Your task to perform on an android device: open app "Google Translate" Image 0: 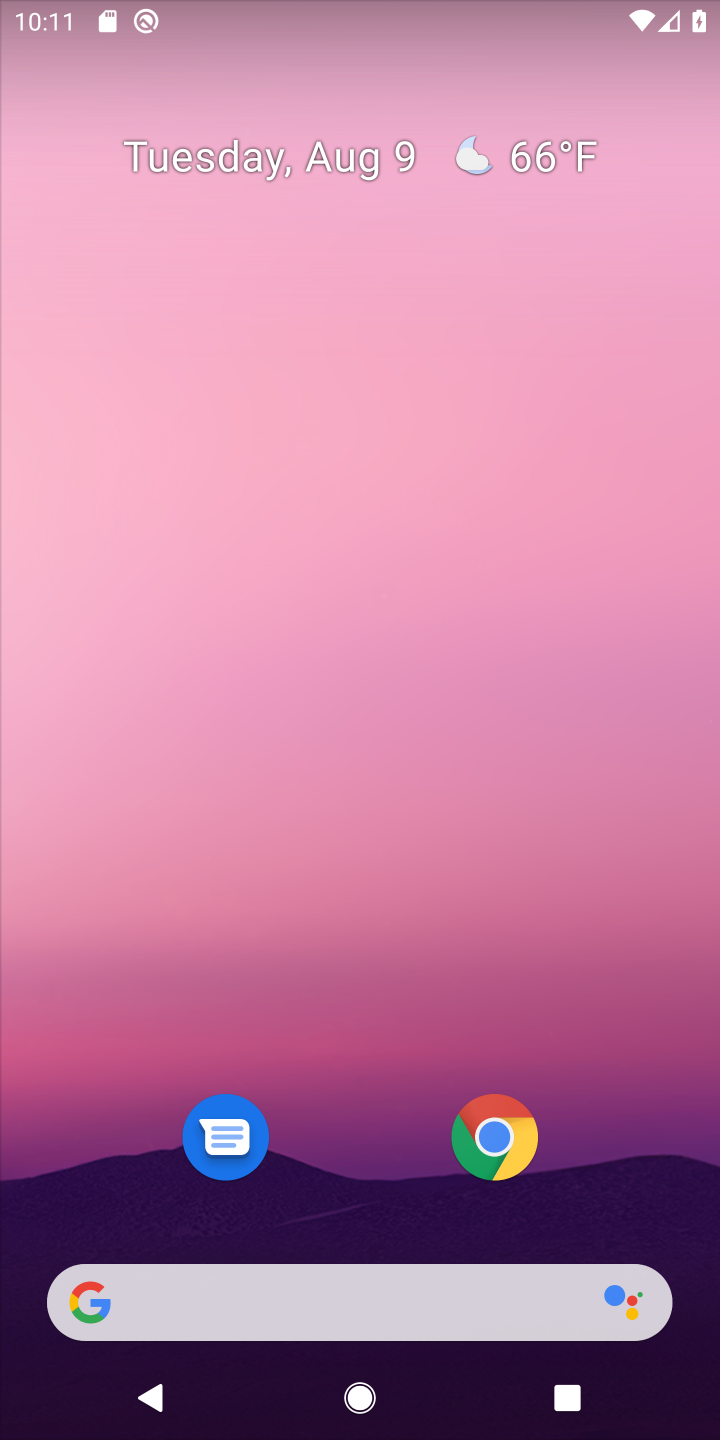
Step 0: drag from (370, 1136) to (381, 366)
Your task to perform on an android device: open app "Google Translate" Image 1: 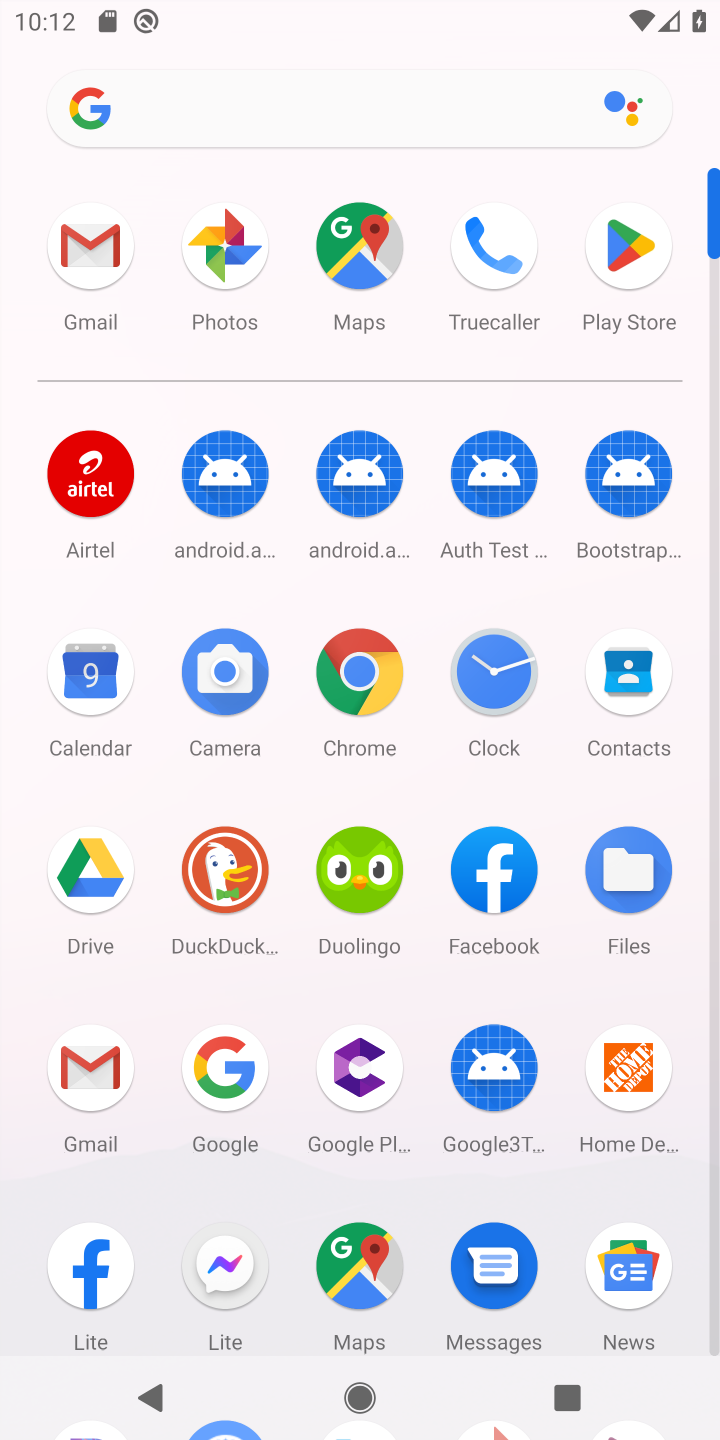
Step 1: drag from (289, 732) to (325, 300)
Your task to perform on an android device: open app "Google Translate" Image 2: 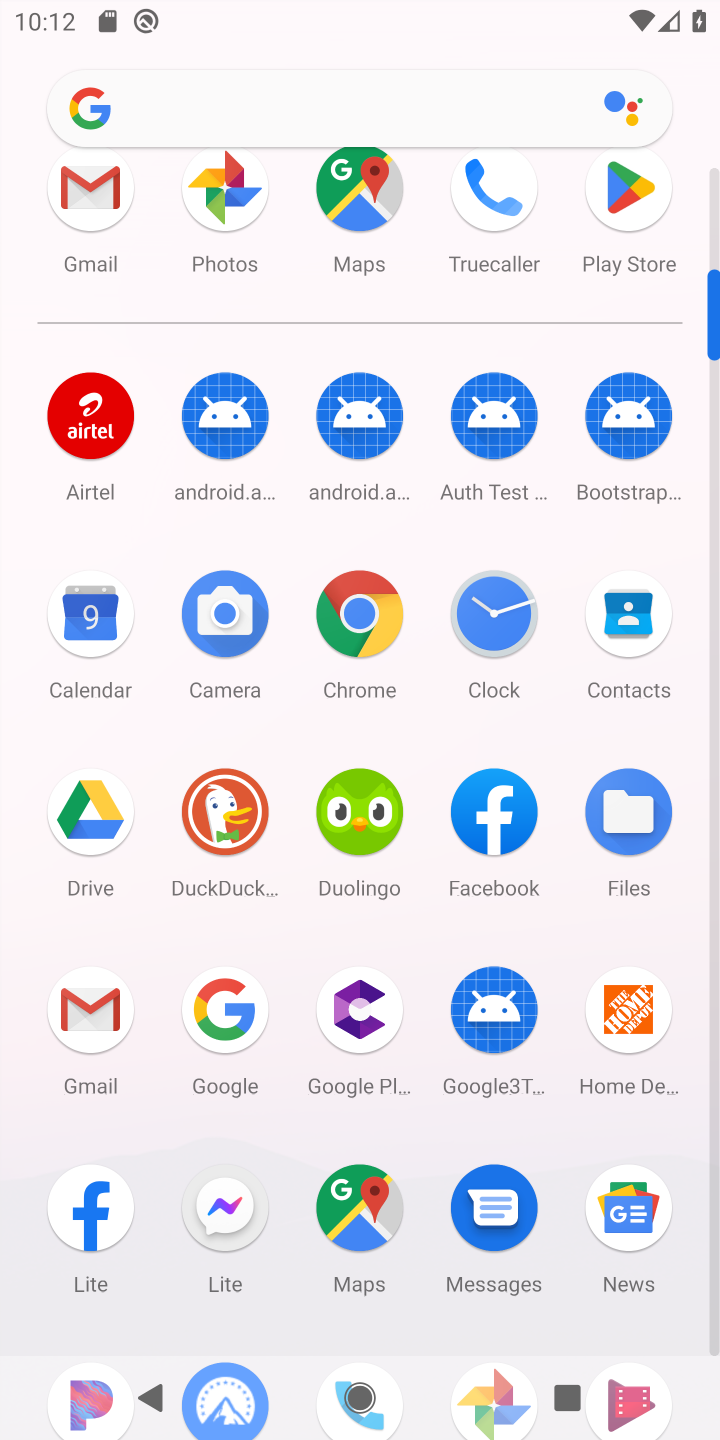
Step 2: click (659, 191)
Your task to perform on an android device: open app "Google Translate" Image 3: 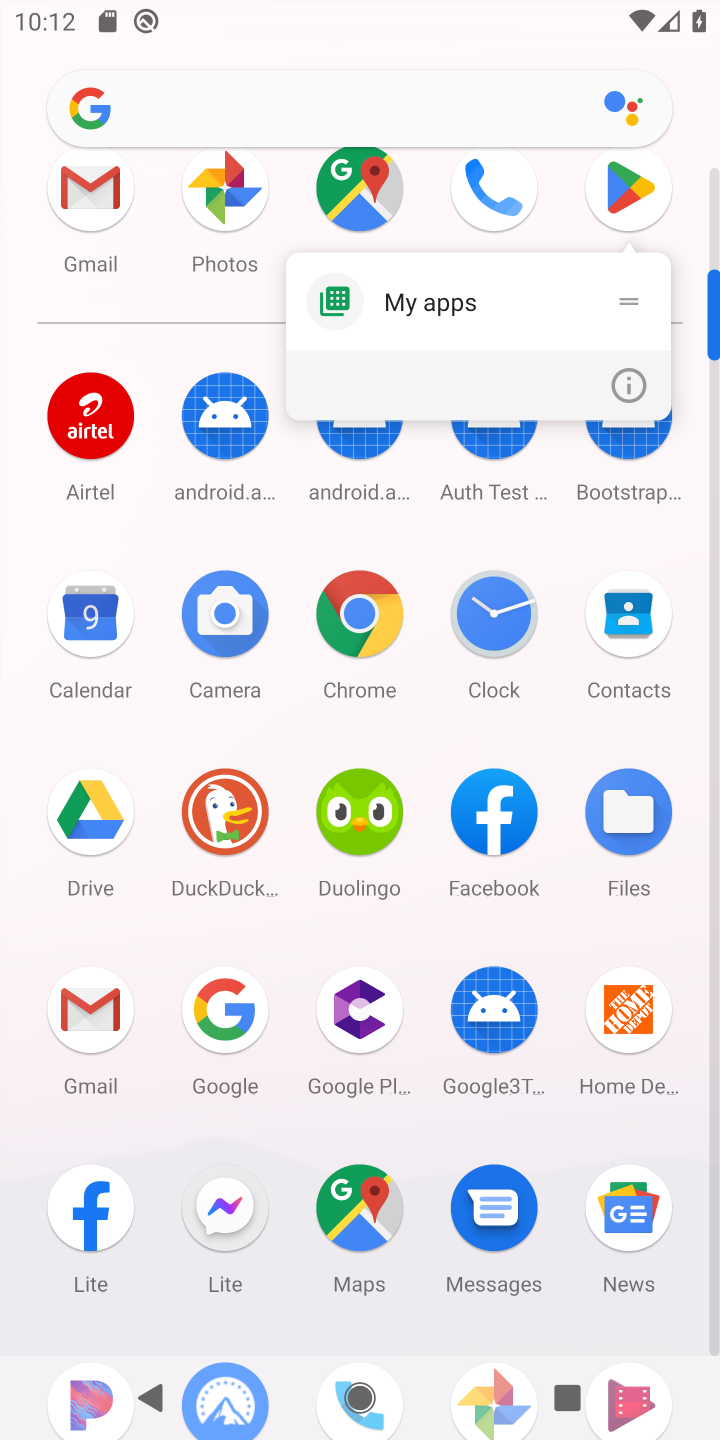
Step 3: click (659, 191)
Your task to perform on an android device: open app "Google Translate" Image 4: 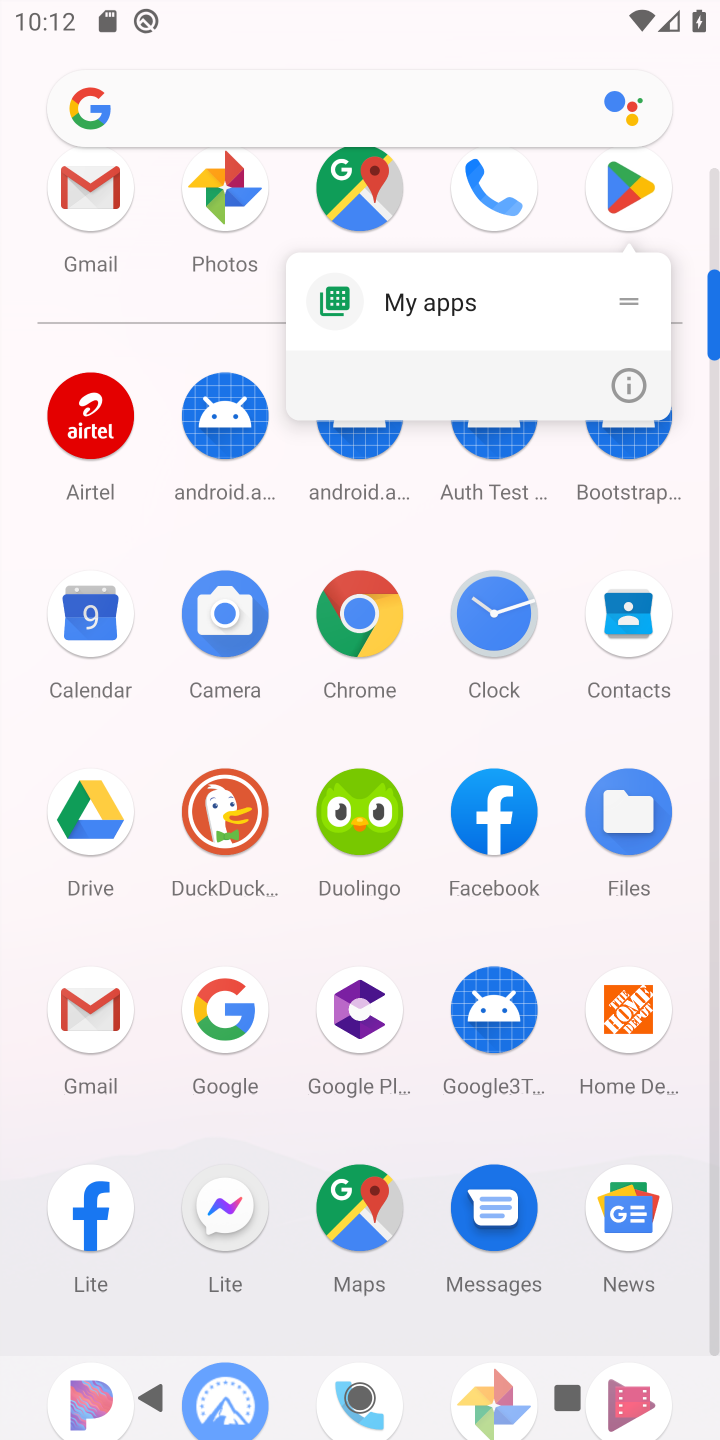
Step 4: click (655, 191)
Your task to perform on an android device: open app "Google Translate" Image 5: 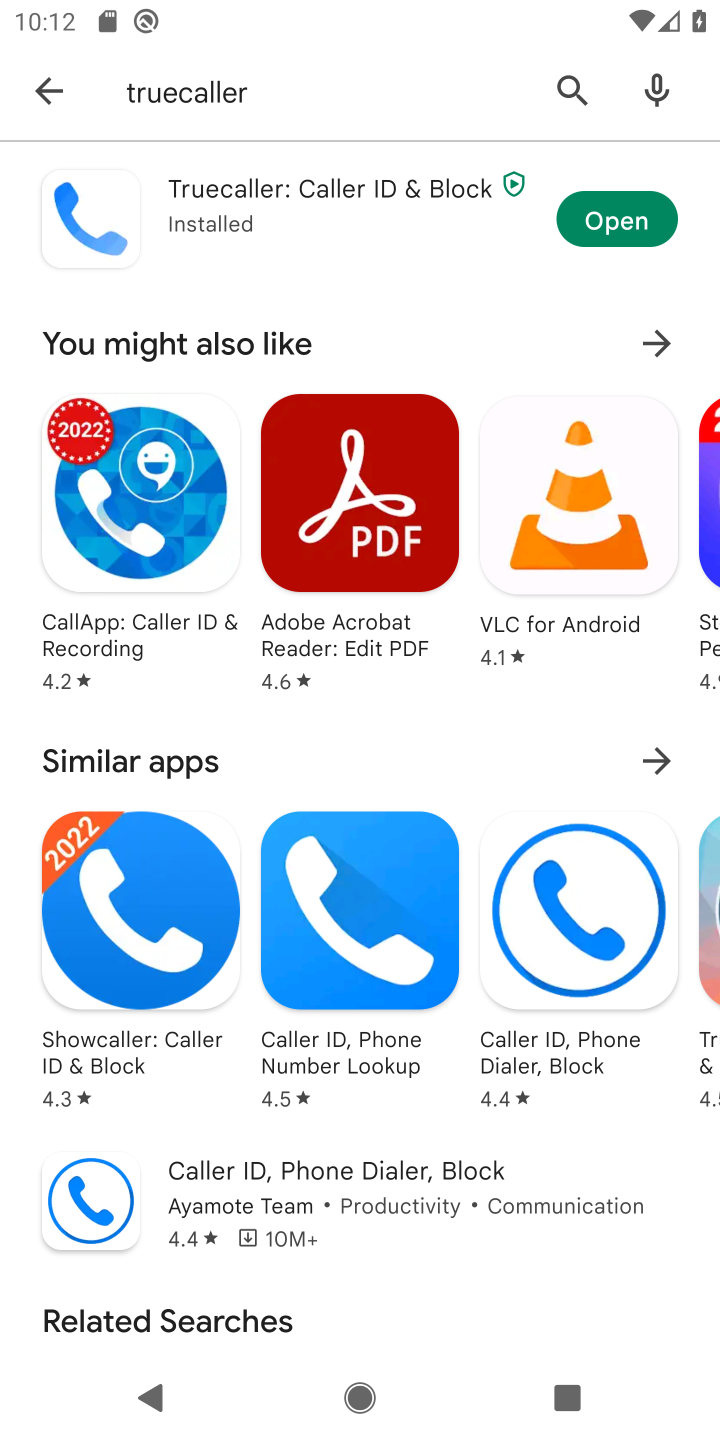
Step 5: click (576, 85)
Your task to perform on an android device: open app "Google Translate" Image 6: 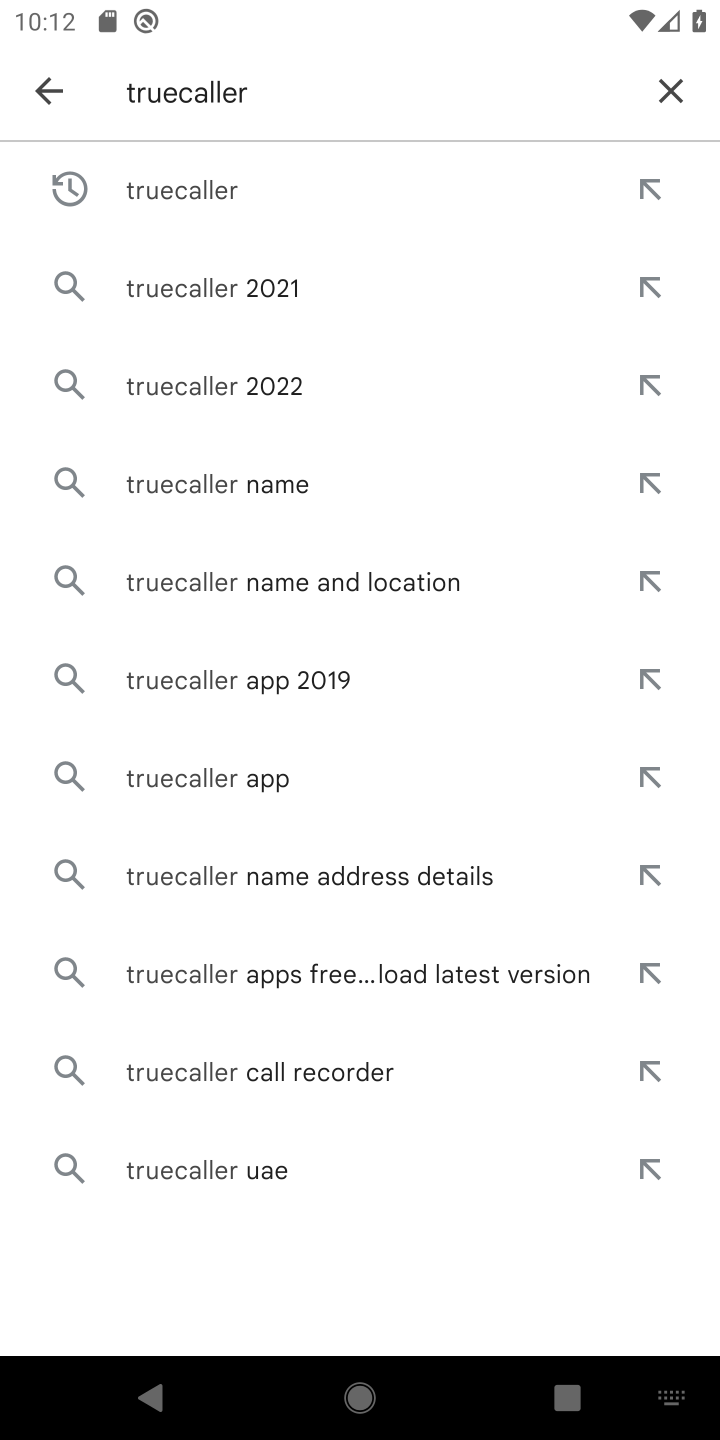
Step 6: click (664, 104)
Your task to perform on an android device: open app "Google Translate" Image 7: 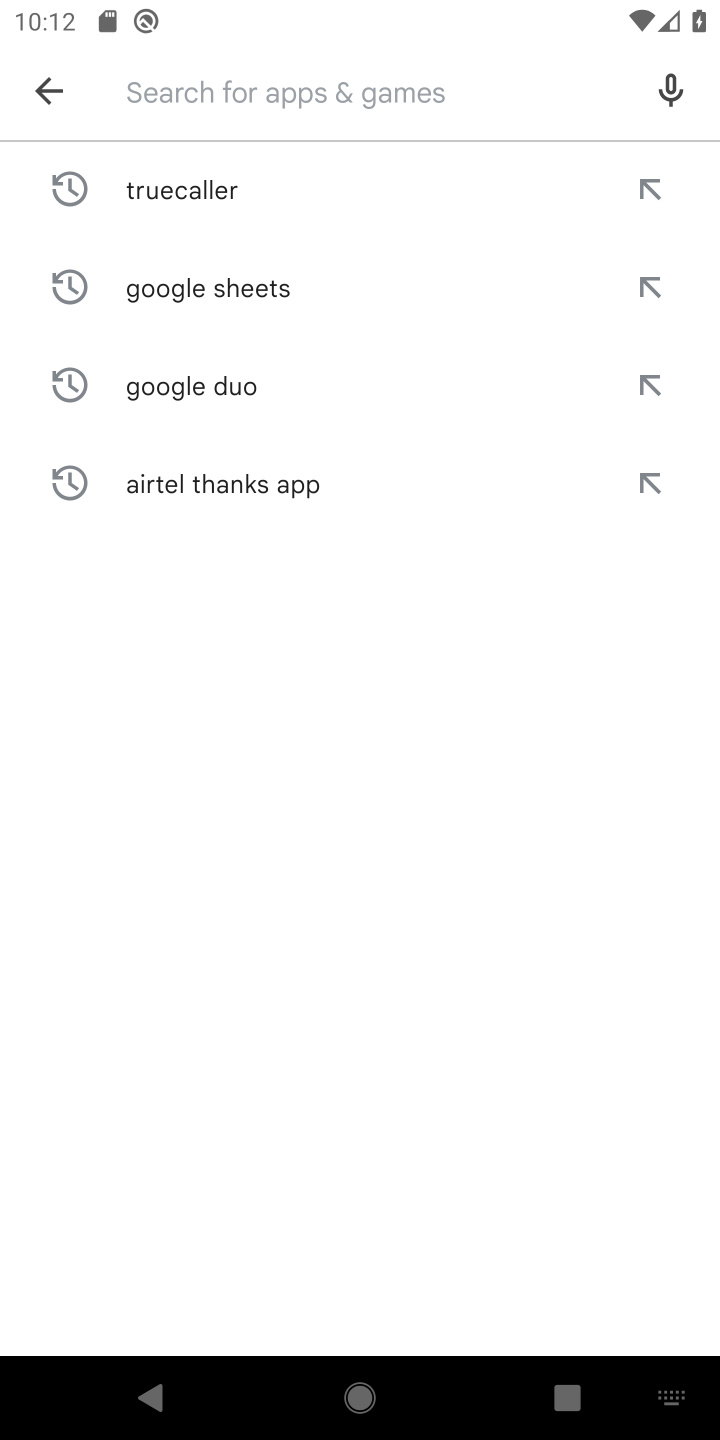
Step 7: type "Google Translate"
Your task to perform on an android device: open app "Google Translate" Image 8: 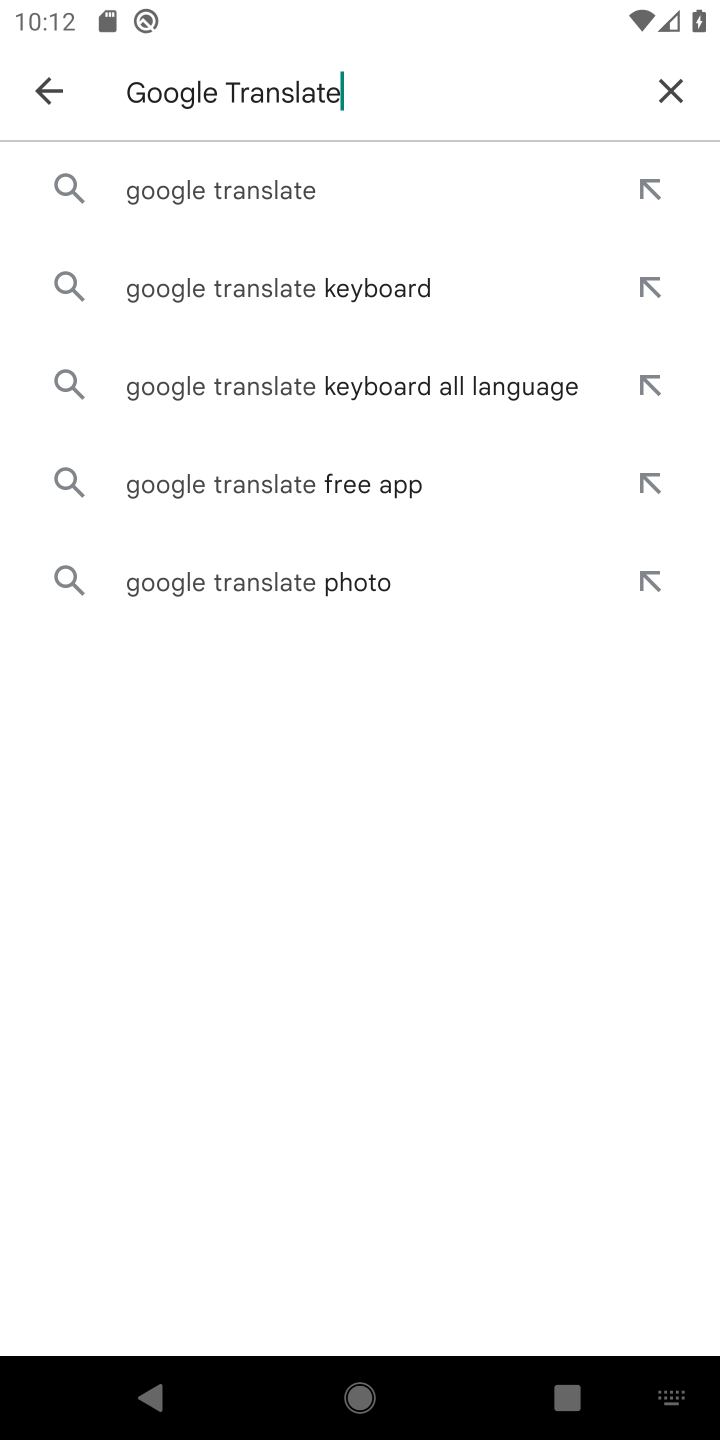
Step 8: click (193, 202)
Your task to perform on an android device: open app "Google Translate" Image 9: 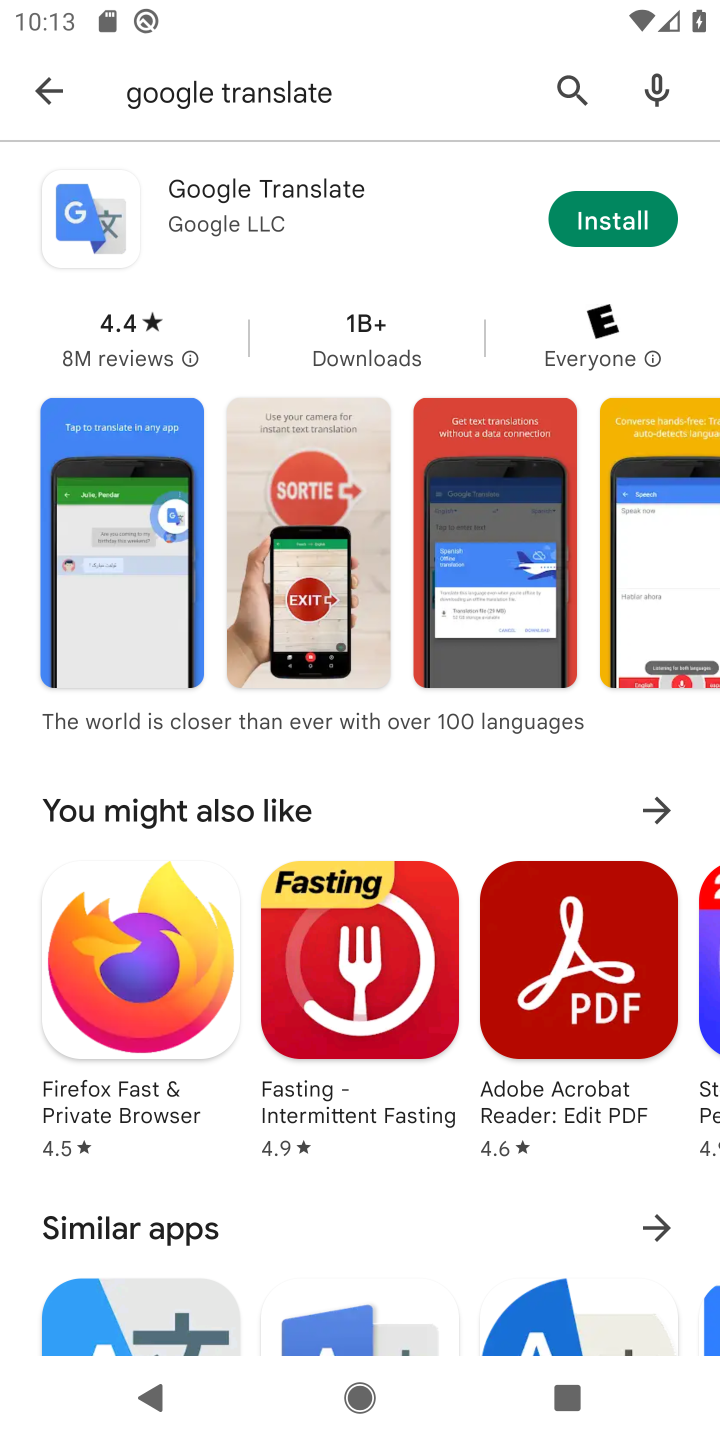
Step 9: task complete